Your task to perform on an android device: Is it going to rain this weekend? Image 0: 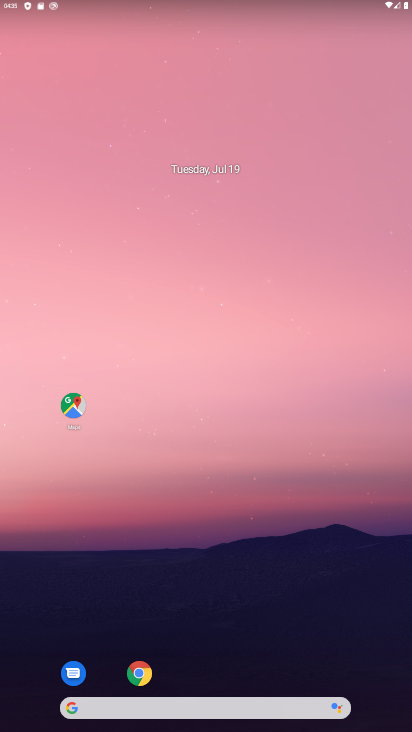
Step 0: click (211, 708)
Your task to perform on an android device: Is it going to rain this weekend? Image 1: 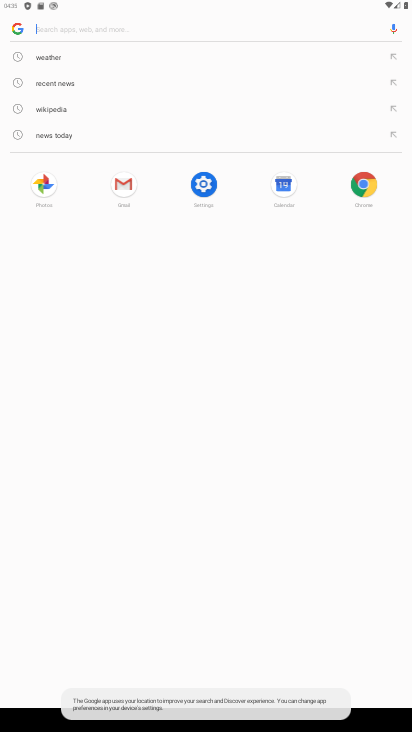
Step 1: click (55, 51)
Your task to perform on an android device: Is it going to rain this weekend? Image 2: 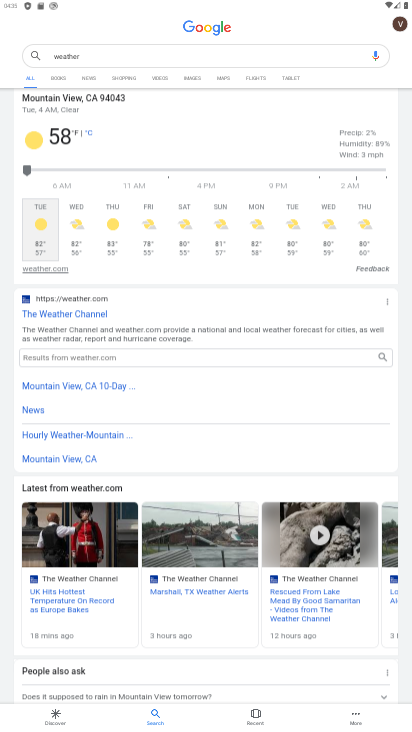
Step 2: click (188, 251)
Your task to perform on an android device: Is it going to rain this weekend? Image 3: 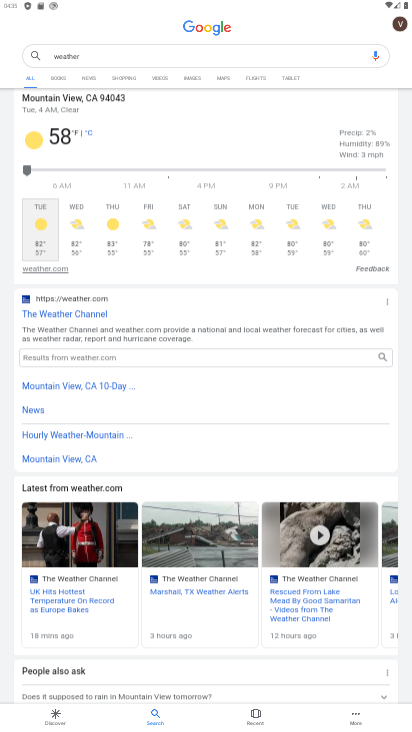
Step 3: click (189, 247)
Your task to perform on an android device: Is it going to rain this weekend? Image 4: 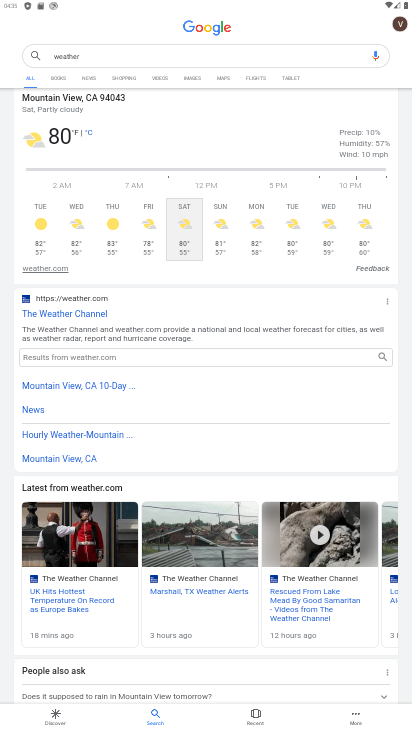
Step 4: task complete